Your task to perform on an android device: turn on sleep mode Image 0: 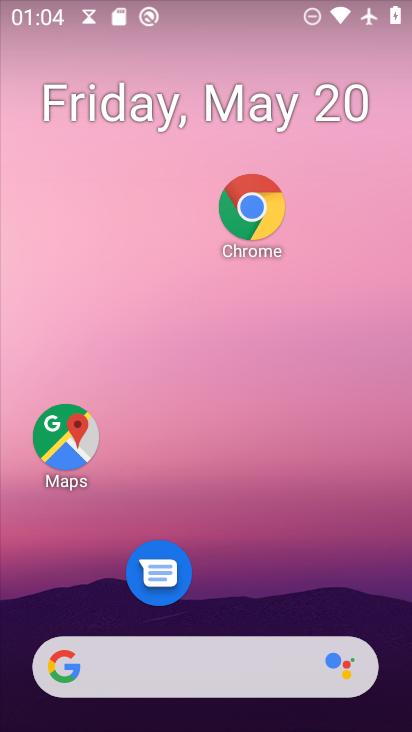
Step 0: drag from (276, 551) to (308, 106)
Your task to perform on an android device: turn on sleep mode Image 1: 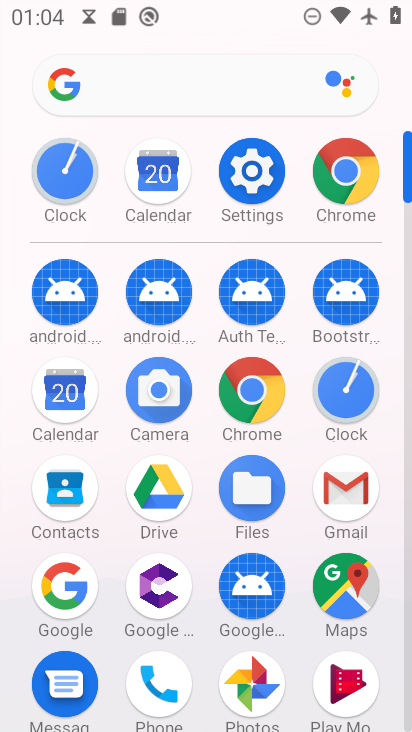
Step 1: click (243, 178)
Your task to perform on an android device: turn on sleep mode Image 2: 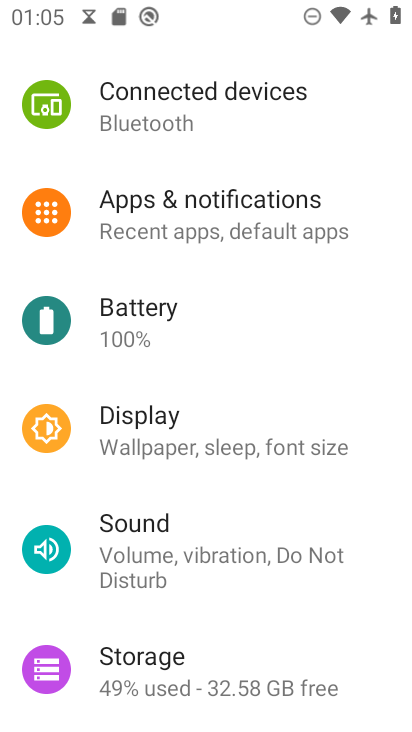
Step 2: click (157, 422)
Your task to perform on an android device: turn on sleep mode Image 3: 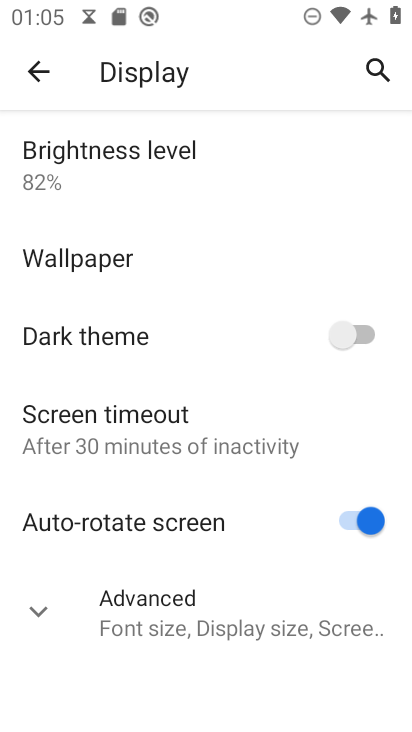
Step 3: click (174, 596)
Your task to perform on an android device: turn on sleep mode Image 4: 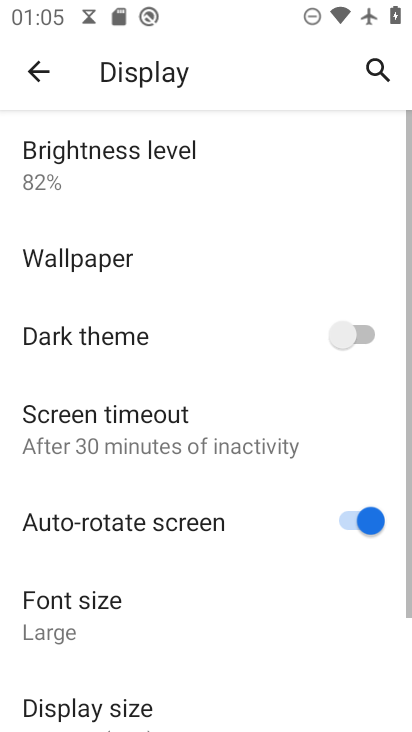
Step 4: drag from (162, 567) to (282, 137)
Your task to perform on an android device: turn on sleep mode Image 5: 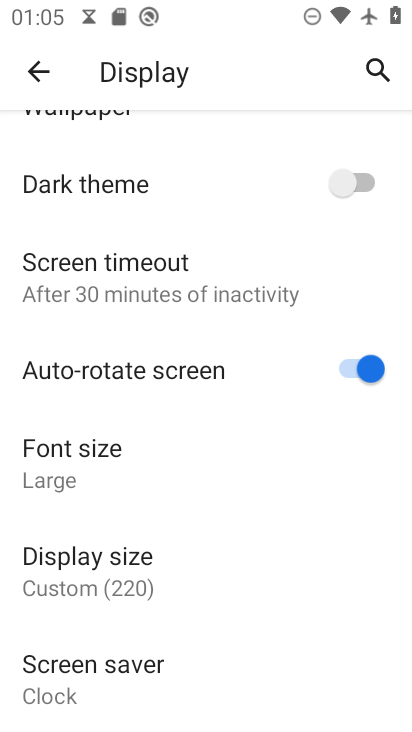
Step 5: click (29, 78)
Your task to perform on an android device: turn on sleep mode Image 6: 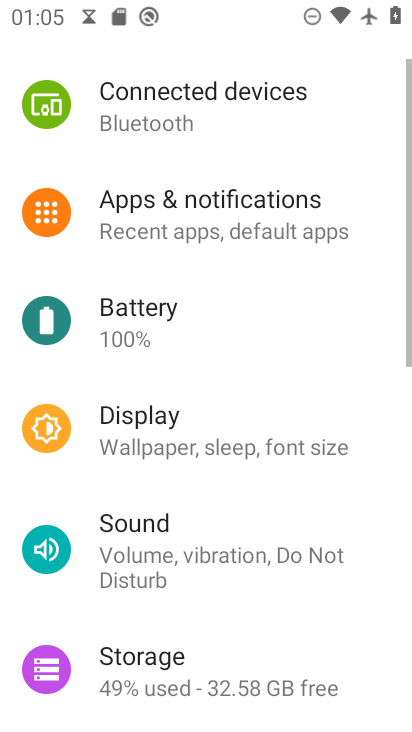
Step 6: task complete